Your task to perform on an android device: Open Maps and search for coffee Image 0: 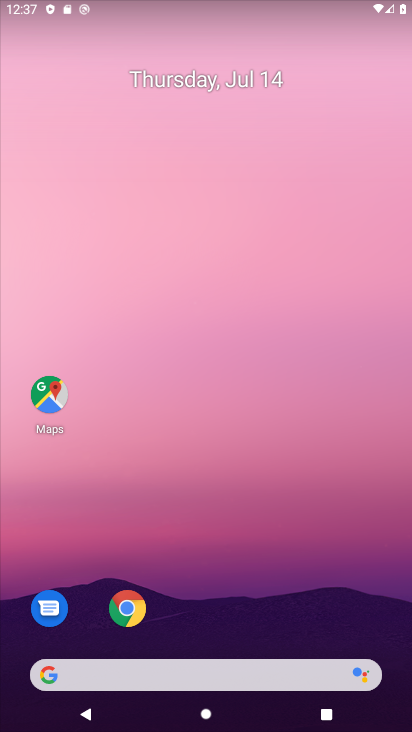
Step 0: drag from (364, 631) to (394, 319)
Your task to perform on an android device: Open Maps and search for coffee Image 1: 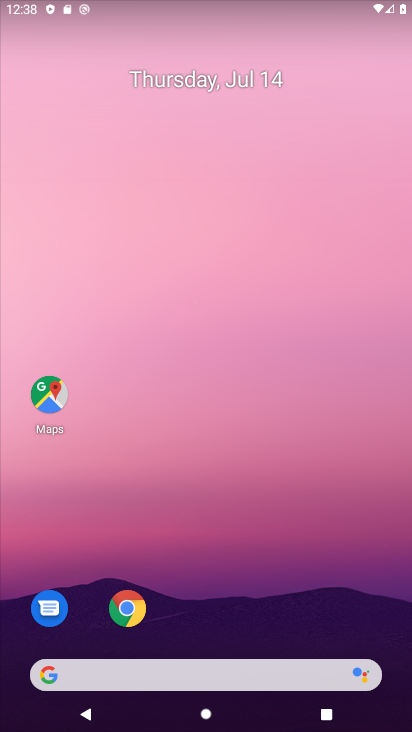
Step 1: click (50, 378)
Your task to perform on an android device: Open Maps and search for coffee Image 2: 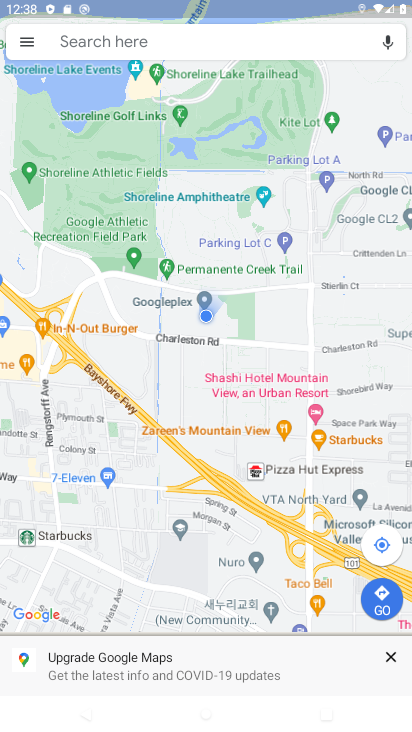
Step 2: click (268, 40)
Your task to perform on an android device: Open Maps and search for coffee Image 3: 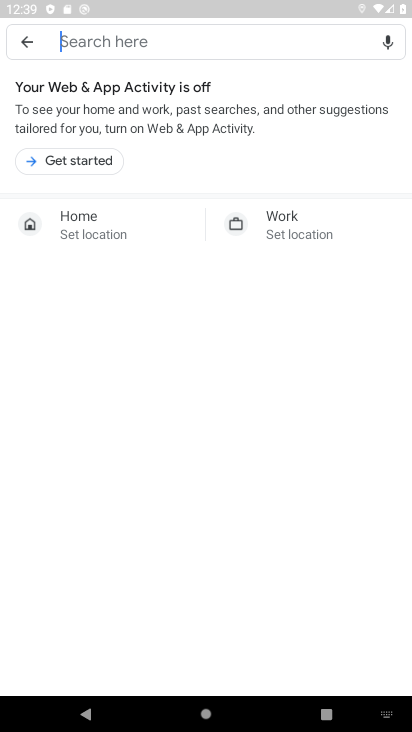
Step 3: click (320, 44)
Your task to perform on an android device: Open Maps and search for coffee Image 4: 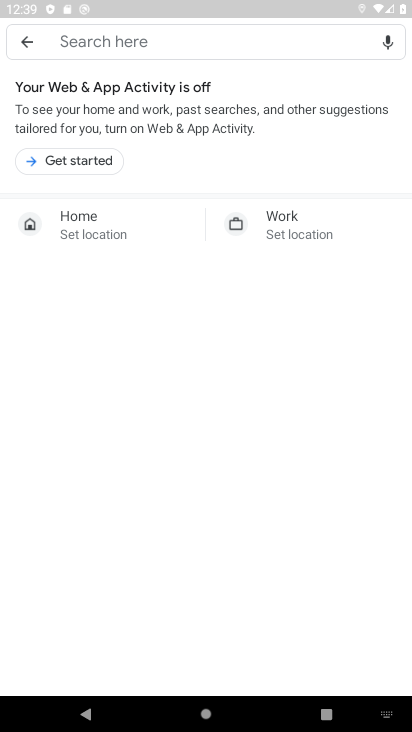
Step 4: type "coffee"
Your task to perform on an android device: Open Maps and search for coffee Image 5: 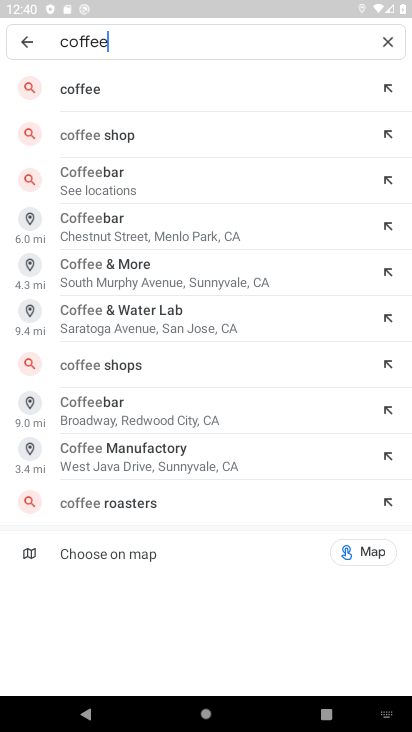
Step 5: click (160, 87)
Your task to perform on an android device: Open Maps and search for coffee Image 6: 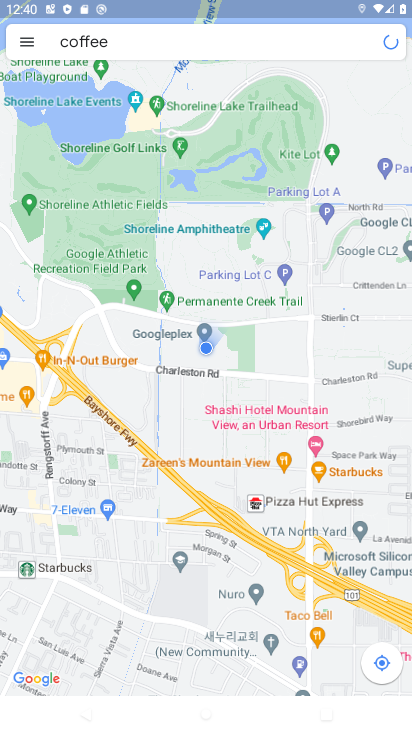
Step 6: task complete